Your task to perform on an android device: Clear the shopping cart on newegg.com. Search for "usb-c to usb-a" on newegg.com, select the first entry, and add it to the cart. Image 0: 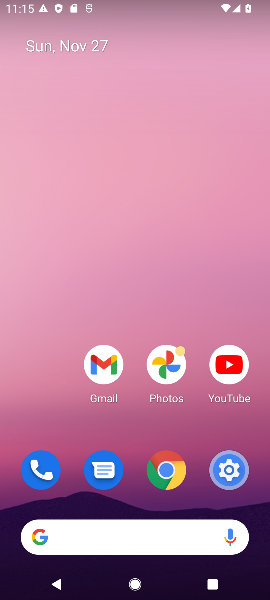
Step 0: click (129, 528)
Your task to perform on an android device: Clear the shopping cart on newegg.com. Search for "usb-c to usb-a" on newegg.com, select the first entry, and add it to the cart. Image 1: 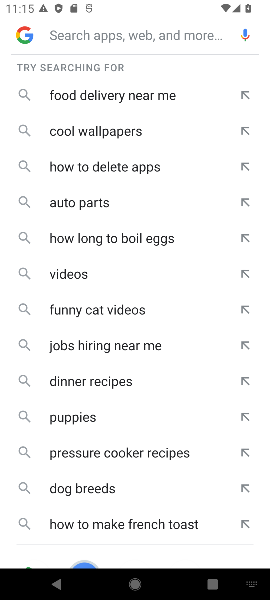
Step 1: type "newegg.com"
Your task to perform on an android device: Clear the shopping cart on newegg.com. Search for "usb-c to usb-a" on newegg.com, select the first entry, and add it to the cart. Image 2: 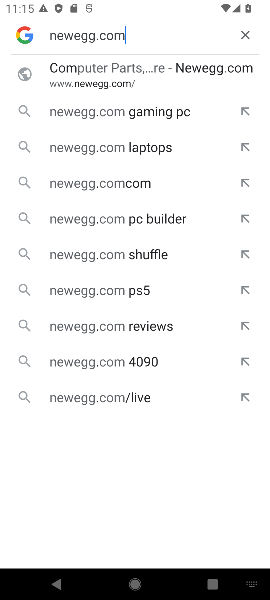
Step 2: click (75, 90)
Your task to perform on an android device: Clear the shopping cart on newegg.com. Search for "usb-c to usb-a" on newegg.com, select the first entry, and add it to the cart. Image 3: 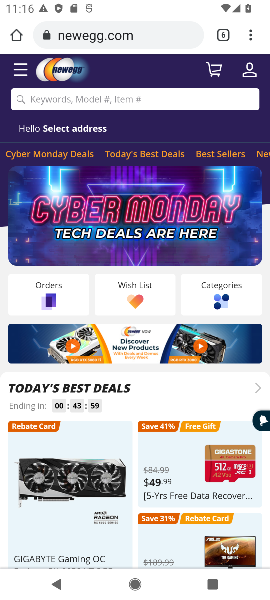
Step 3: task complete